Your task to perform on an android device: uninstall "Messenger Lite" Image 0: 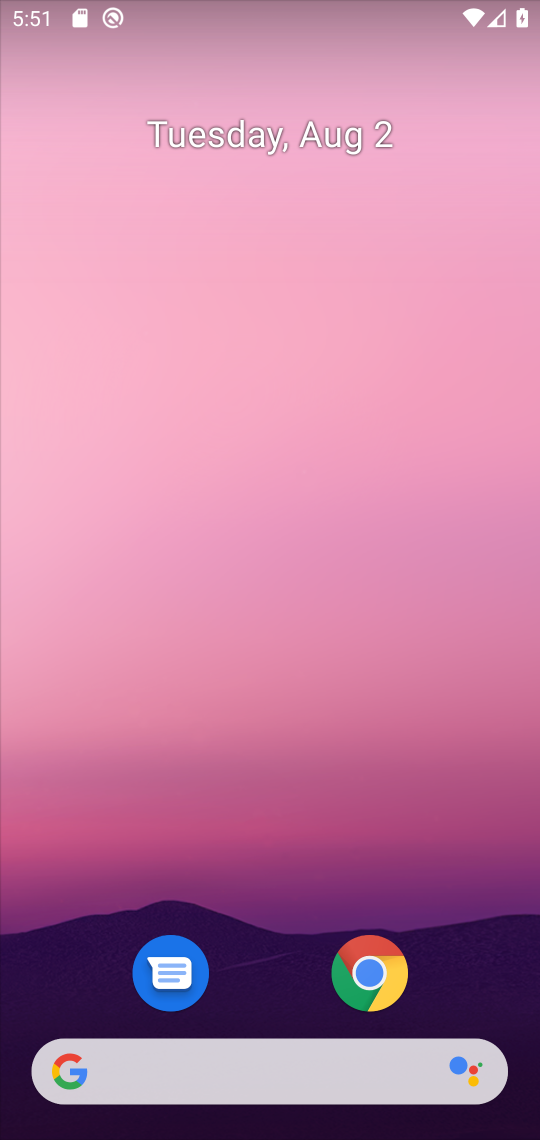
Step 0: drag from (267, 997) to (283, 179)
Your task to perform on an android device: uninstall "Messenger Lite" Image 1: 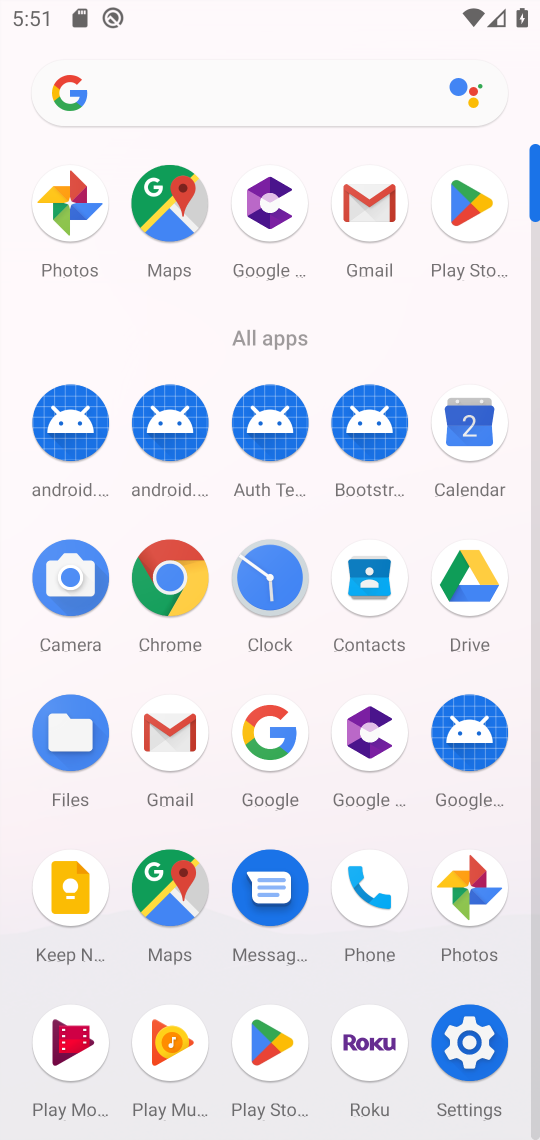
Step 1: click (458, 191)
Your task to perform on an android device: uninstall "Messenger Lite" Image 2: 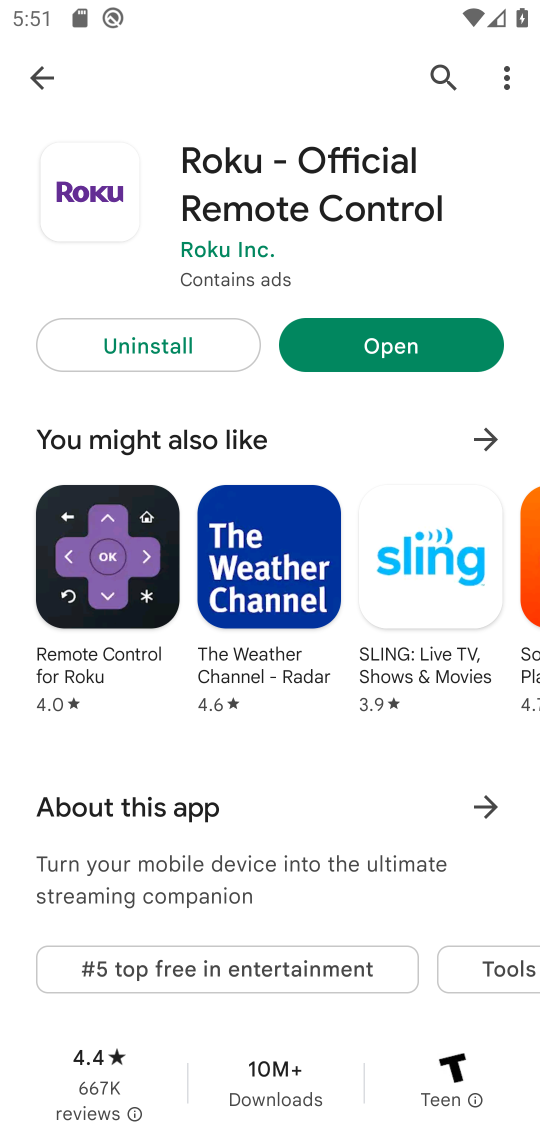
Step 2: click (432, 83)
Your task to perform on an android device: uninstall "Messenger Lite" Image 3: 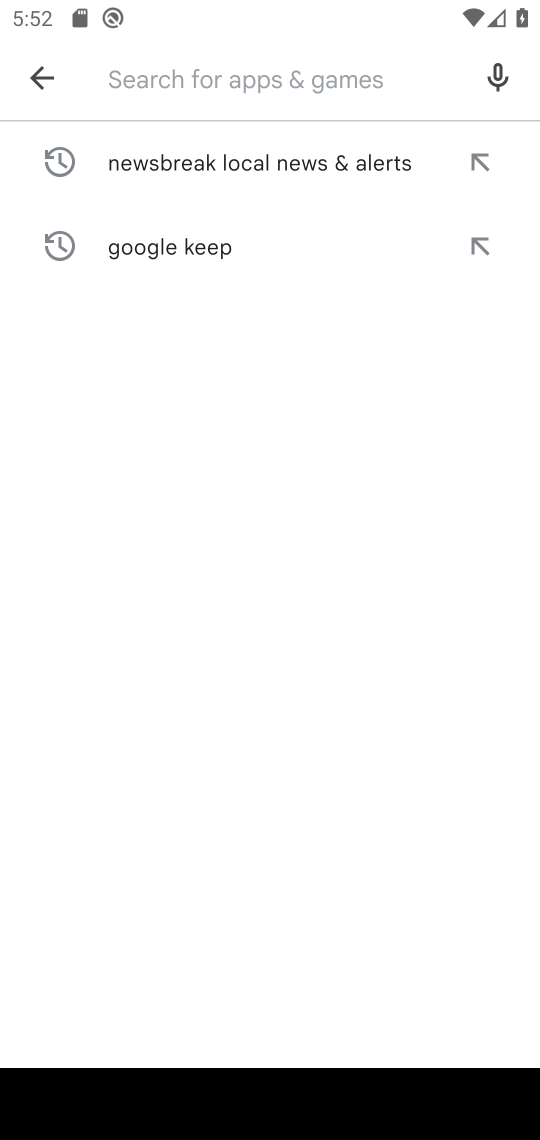
Step 3: type "messenger lite"
Your task to perform on an android device: uninstall "Messenger Lite" Image 4: 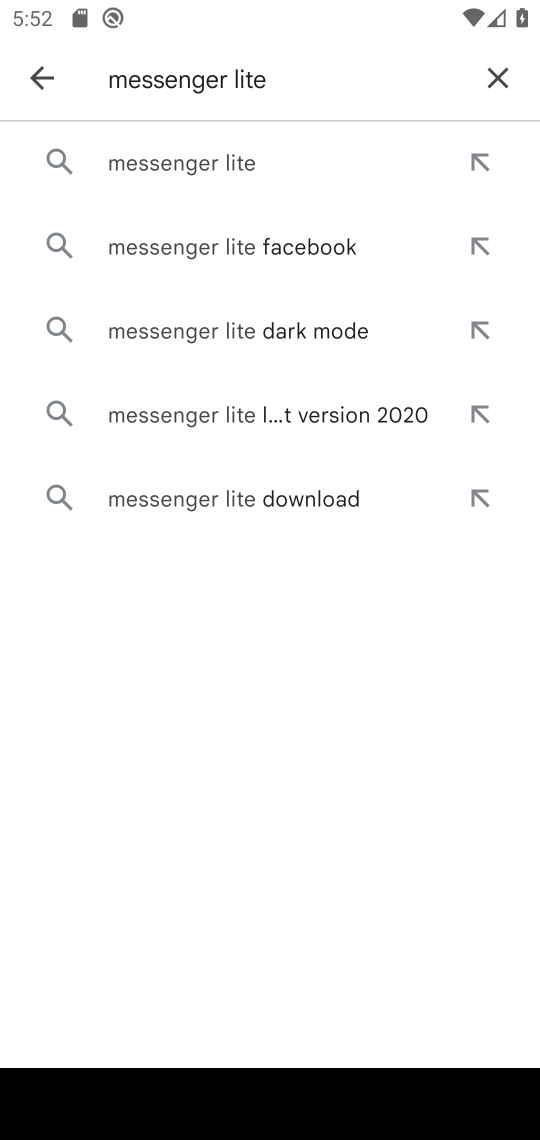
Step 4: click (304, 150)
Your task to perform on an android device: uninstall "Messenger Lite" Image 5: 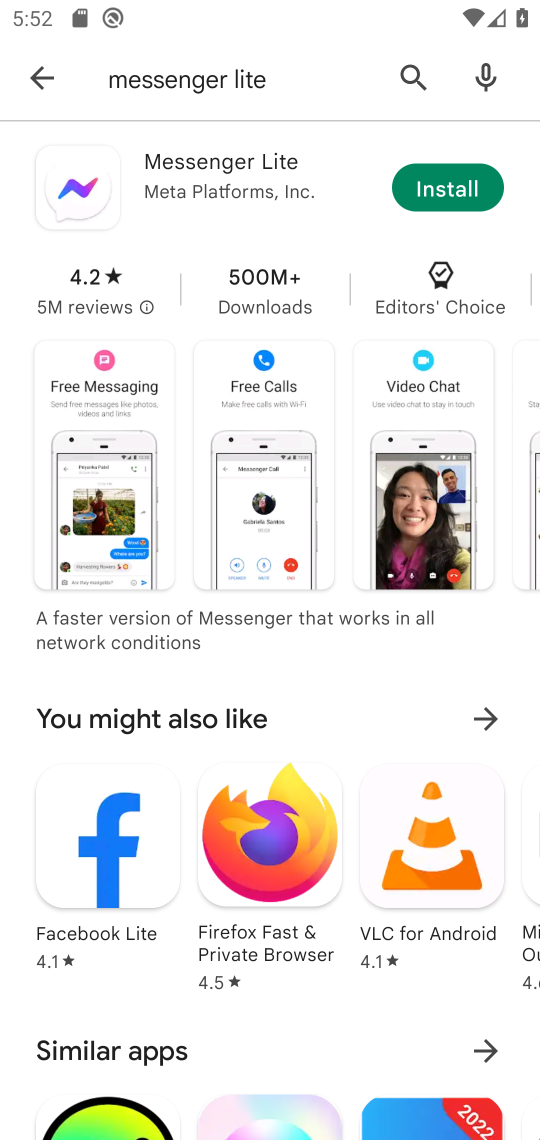
Step 5: click (236, 165)
Your task to perform on an android device: uninstall "Messenger Lite" Image 6: 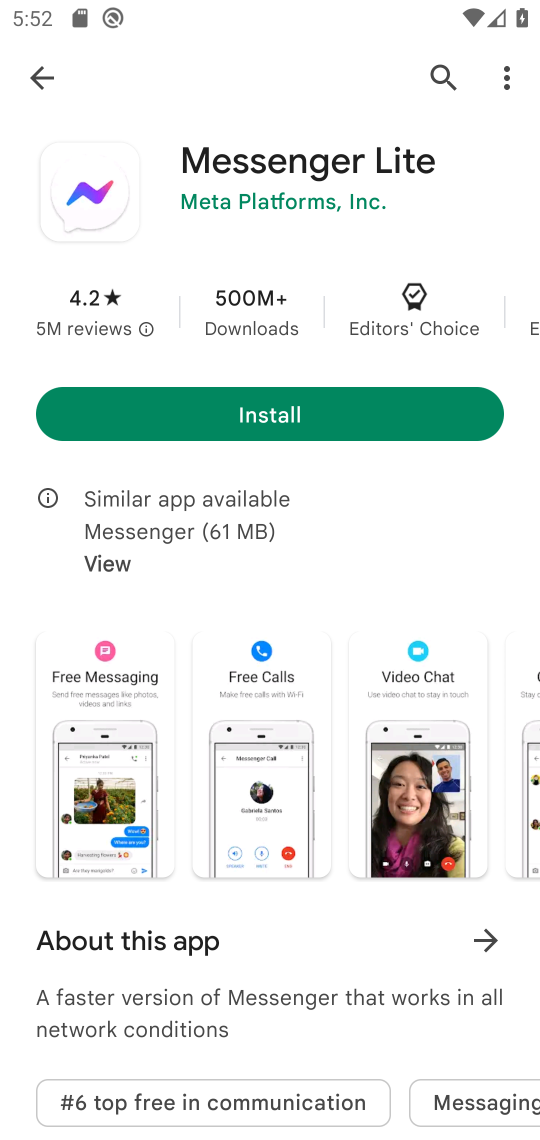
Step 6: task complete